Your task to perform on an android device: Toggle the flashlight Image 0: 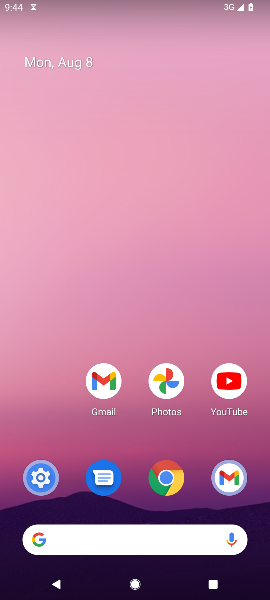
Step 0: drag from (149, 45) to (118, 312)
Your task to perform on an android device: Toggle the flashlight Image 1: 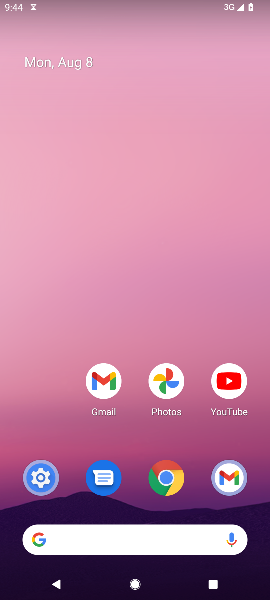
Step 1: task complete